Your task to perform on an android device: toggle notification dots Image 0: 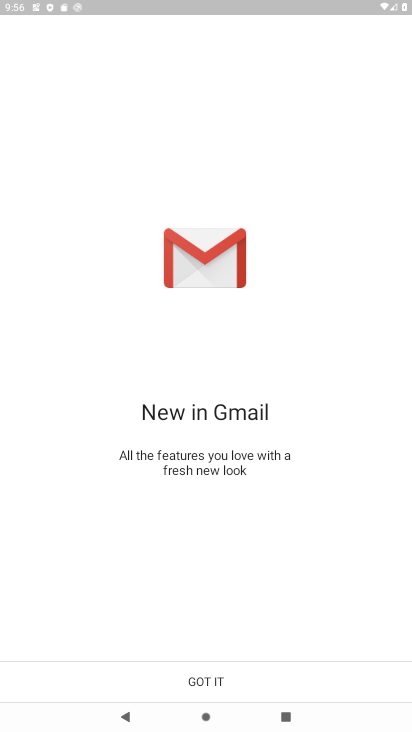
Step 0: press home button
Your task to perform on an android device: toggle notification dots Image 1: 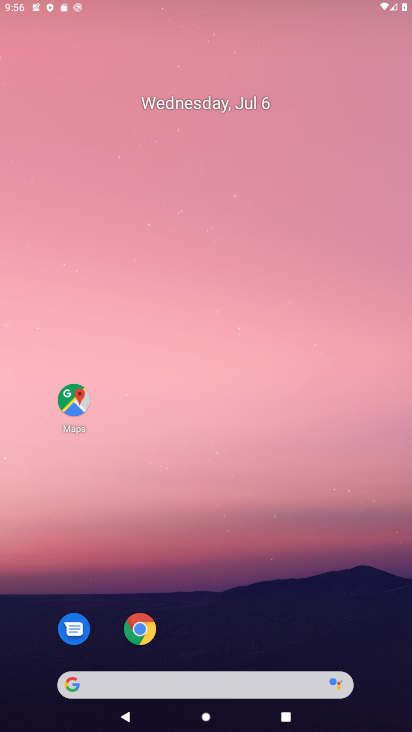
Step 1: drag from (244, 443) to (201, 48)
Your task to perform on an android device: toggle notification dots Image 2: 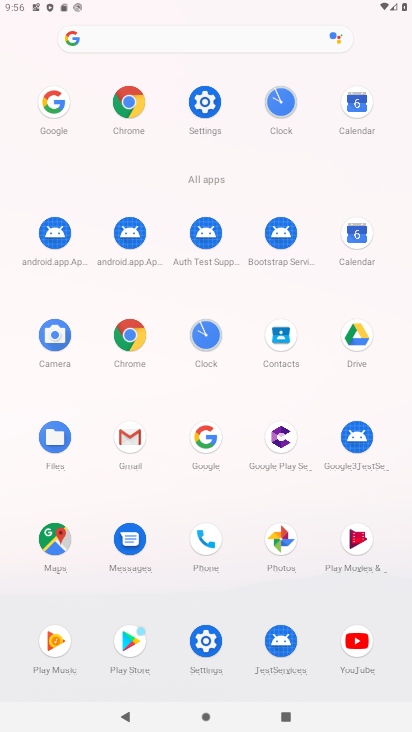
Step 2: click (207, 102)
Your task to perform on an android device: toggle notification dots Image 3: 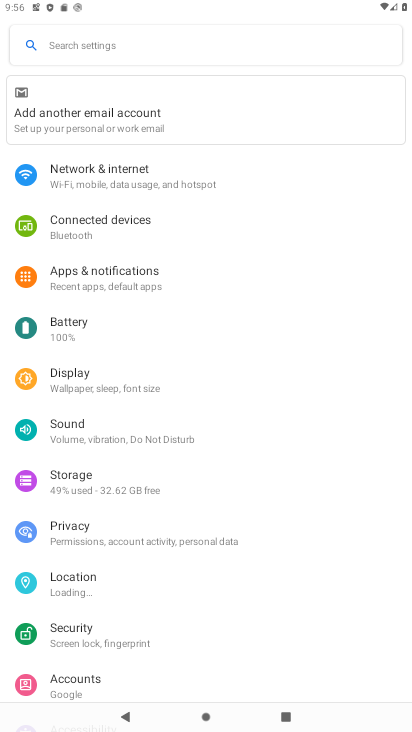
Step 3: click (131, 277)
Your task to perform on an android device: toggle notification dots Image 4: 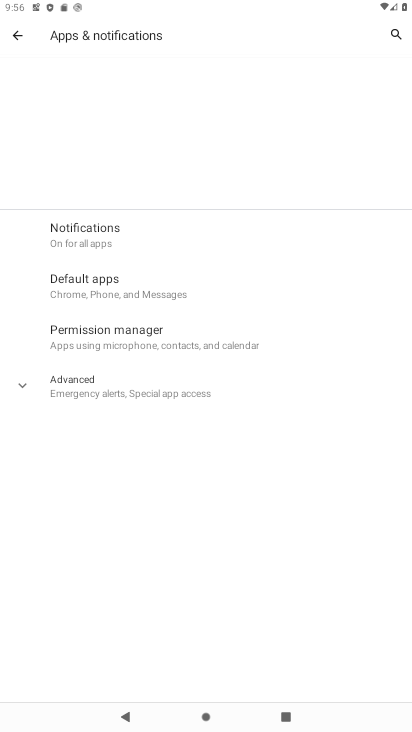
Step 4: click (80, 234)
Your task to perform on an android device: toggle notification dots Image 5: 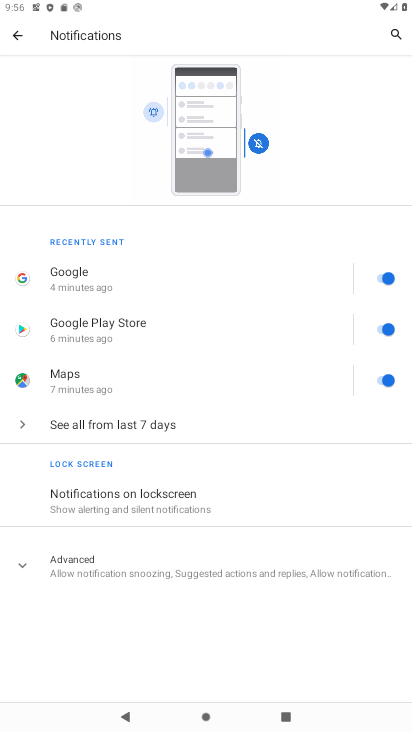
Step 5: click (93, 568)
Your task to perform on an android device: toggle notification dots Image 6: 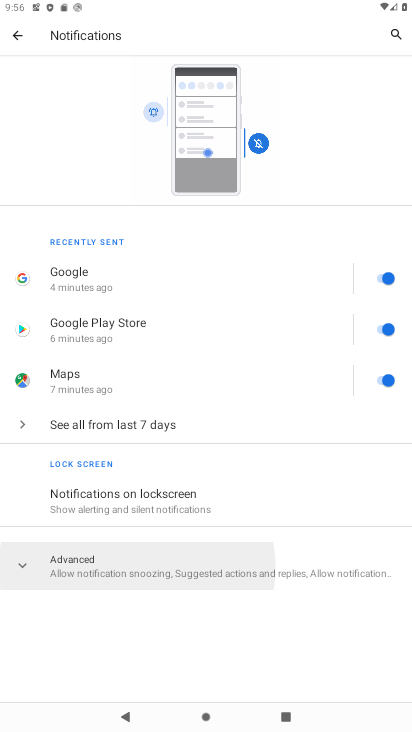
Step 6: drag from (190, 447) to (180, 230)
Your task to perform on an android device: toggle notification dots Image 7: 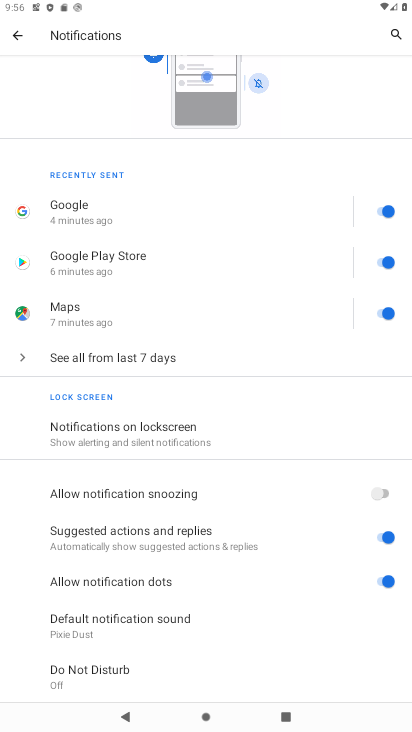
Step 7: click (381, 579)
Your task to perform on an android device: toggle notification dots Image 8: 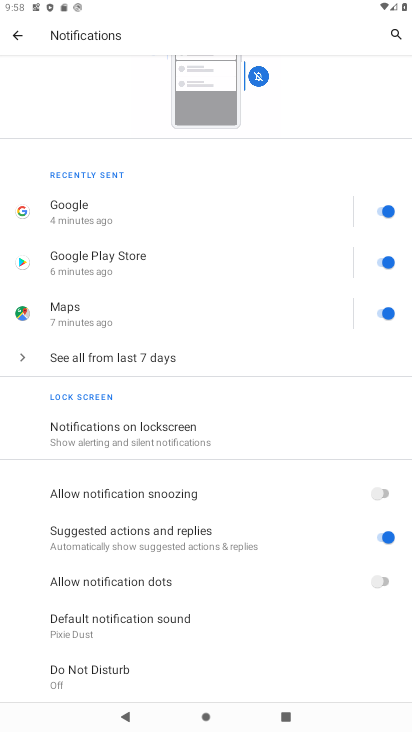
Step 8: task complete